Your task to perform on an android device: clear history in the chrome app Image 0: 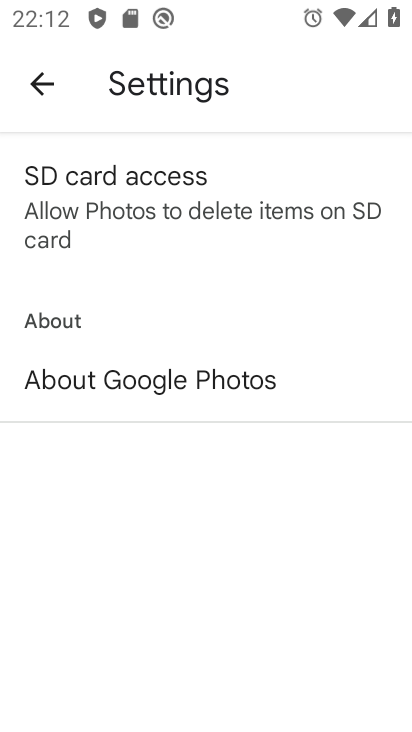
Step 0: click (37, 92)
Your task to perform on an android device: clear history in the chrome app Image 1: 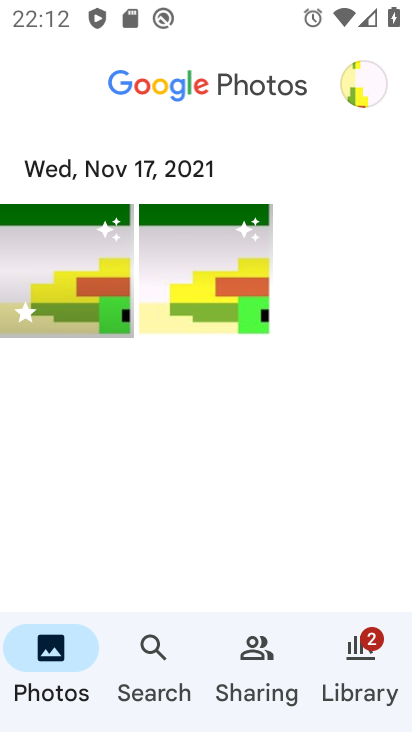
Step 1: press home button
Your task to perform on an android device: clear history in the chrome app Image 2: 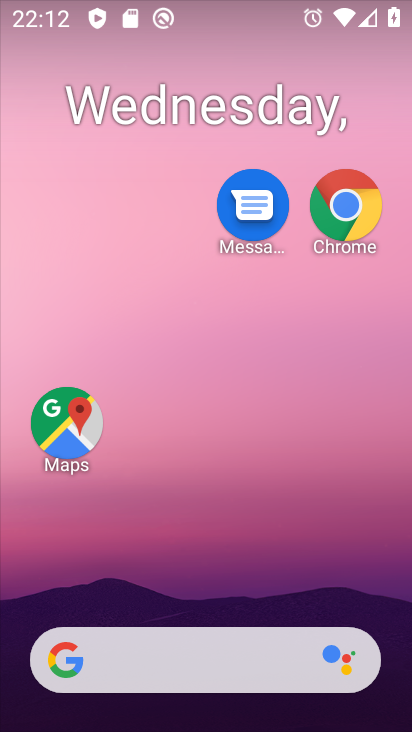
Step 2: click (342, 207)
Your task to perform on an android device: clear history in the chrome app Image 3: 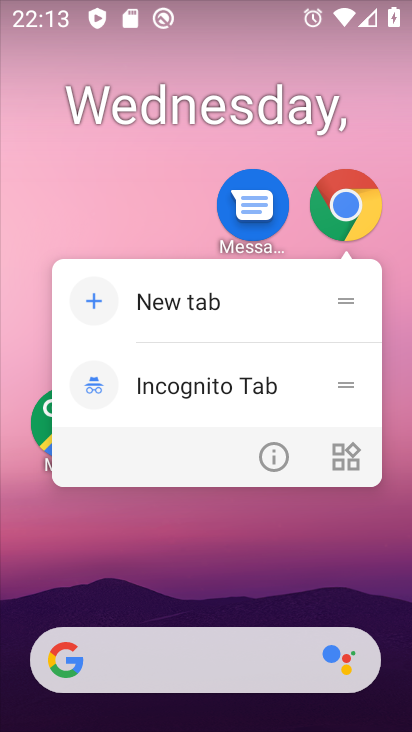
Step 3: click (269, 451)
Your task to perform on an android device: clear history in the chrome app Image 4: 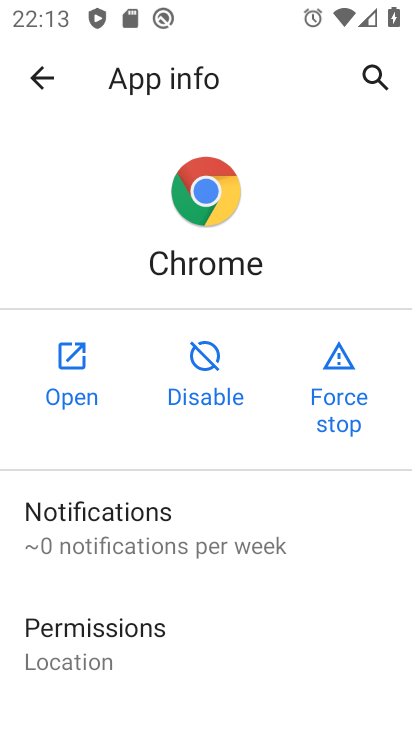
Step 4: click (90, 374)
Your task to perform on an android device: clear history in the chrome app Image 5: 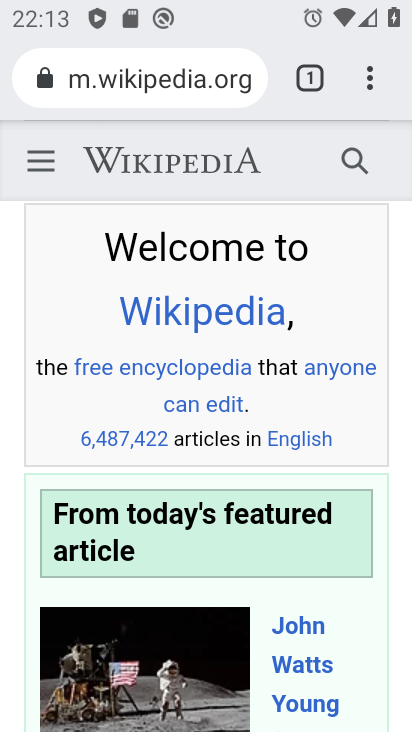
Step 5: click (368, 94)
Your task to perform on an android device: clear history in the chrome app Image 6: 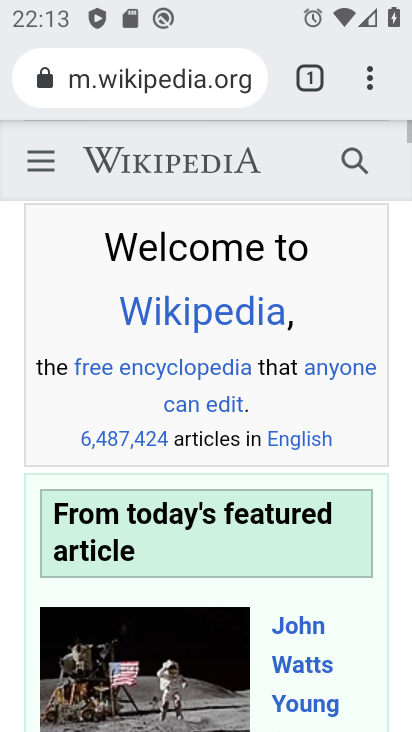
Step 6: drag from (368, 94) to (105, 531)
Your task to perform on an android device: clear history in the chrome app Image 7: 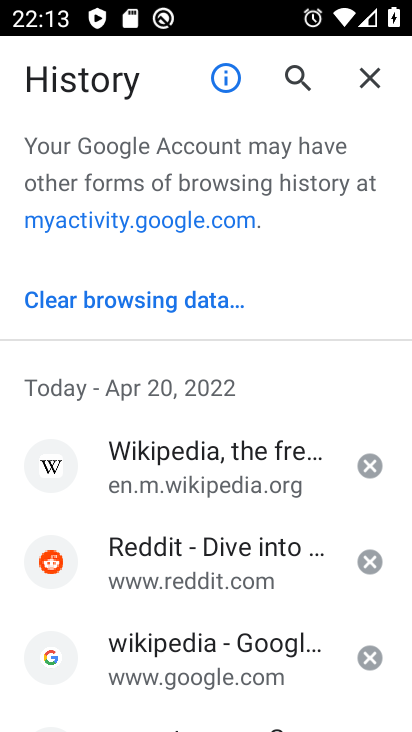
Step 7: click (88, 304)
Your task to perform on an android device: clear history in the chrome app Image 8: 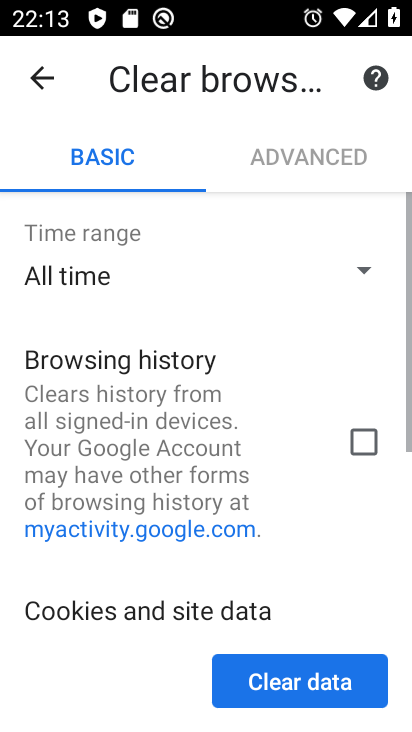
Step 8: click (372, 442)
Your task to perform on an android device: clear history in the chrome app Image 9: 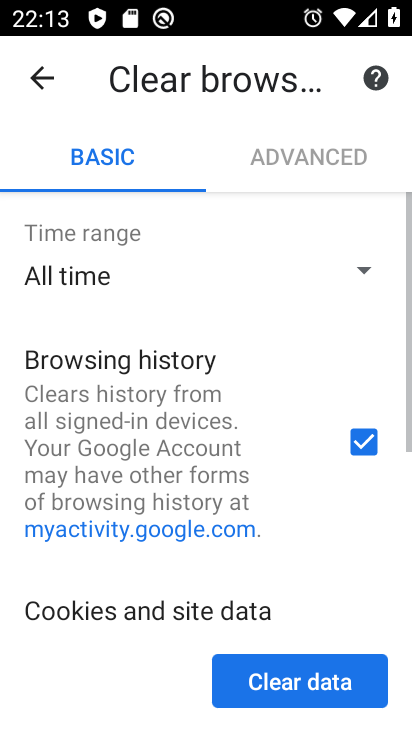
Step 9: click (304, 681)
Your task to perform on an android device: clear history in the chrome app Image 10: 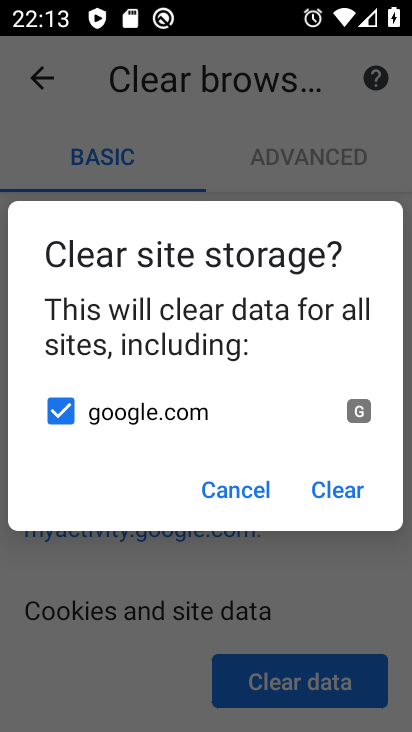
Step 10: click (345, 491)
Your task to perform on an android device: clear history in the chrome app Image 11: 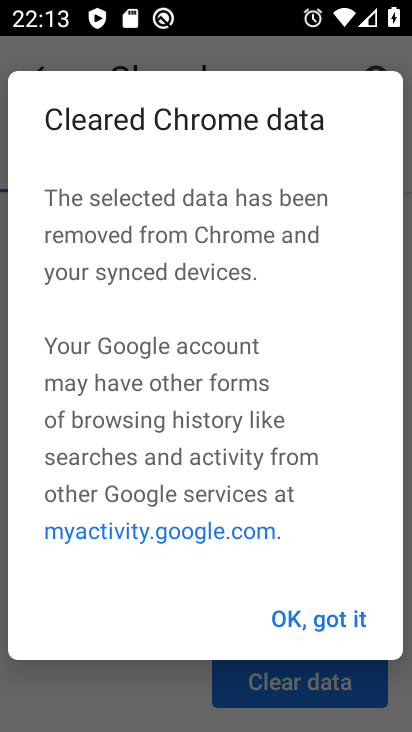
Step 11: click (332, 625)
Your task to perform on an android device: clear history in the chrome app Image 12: 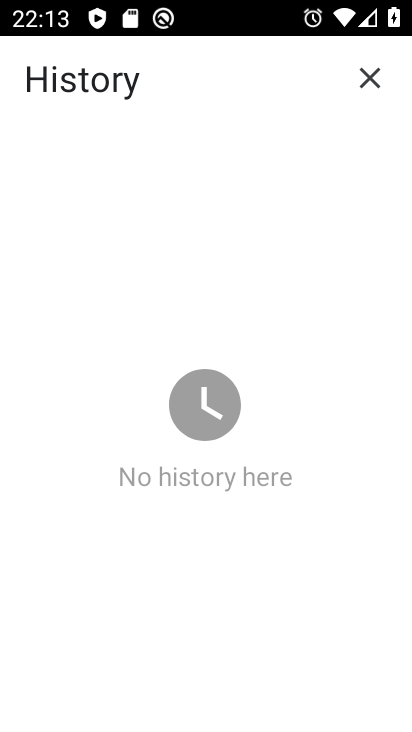
Step 12: task complete